Your task to perform on an android device: find snoozed emails in the gmail app Image 0: 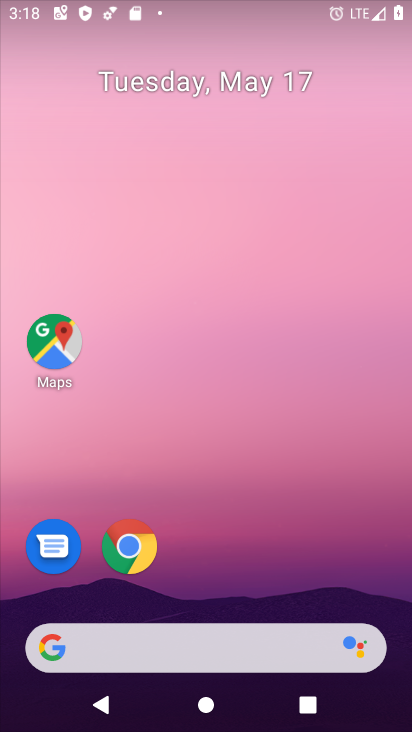
Step 0: press home button
Your task to perform on an android device: find snoozed emails in the gmail app Image 1: 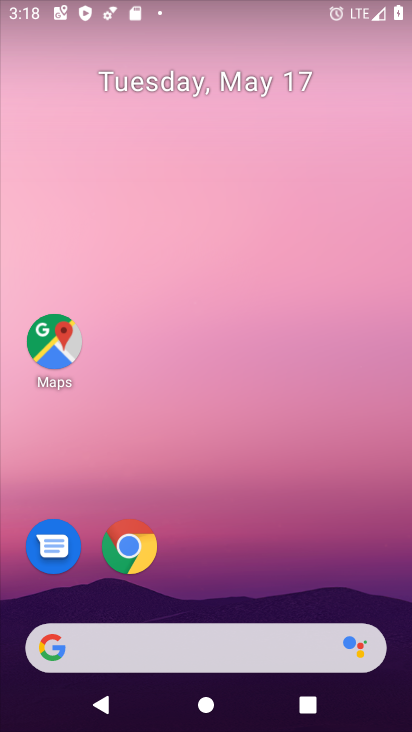
Step 1: drag from (220, 542) to (254, 42)
Your task to perform on an android device: find snoozed emails in the gmail app Image 2: 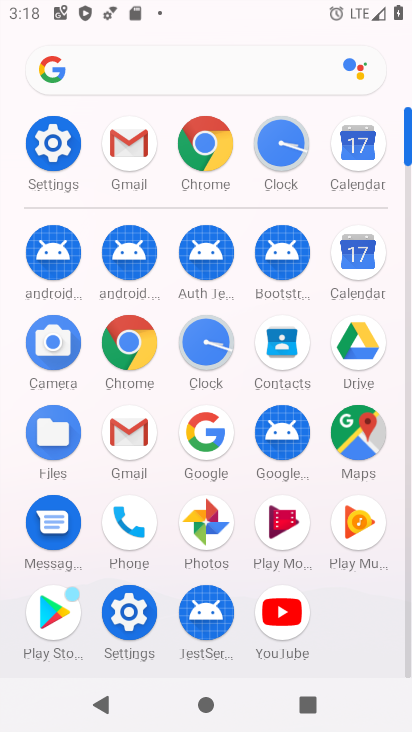
Step 2: click (124, 139)
Your task to perform on an android device: find snoozed emails in the gmail app Image 3: 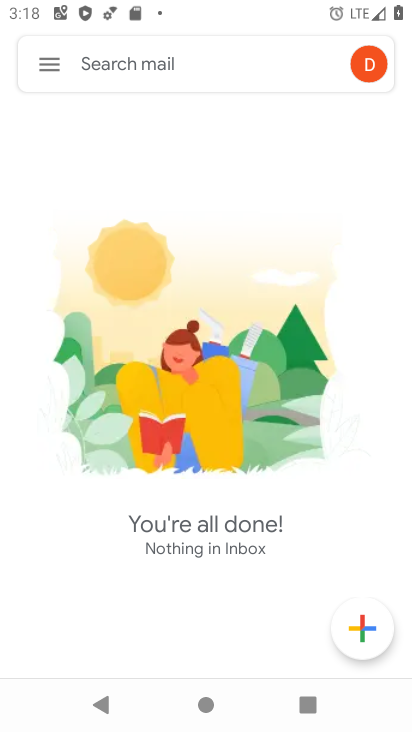
Step 3: click (47, 52)
Your task to perform on an android device: find snoozed emails in the gmail app Image 4: 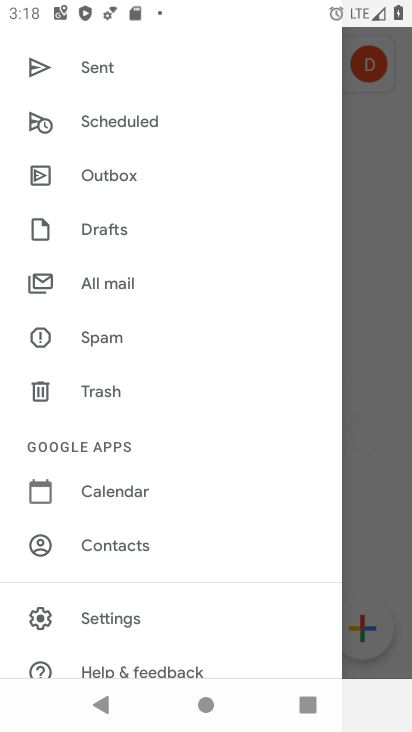
Step 4: drag from (106, 625) to (187, 720)
Your task to perform on an android device: find snoozed emails in the gmail app Image 5: 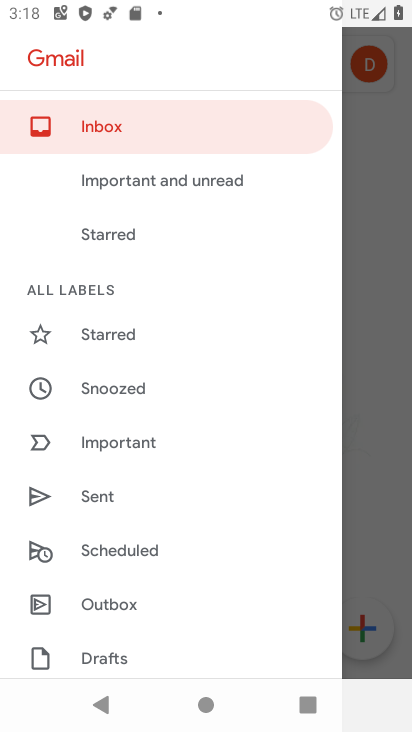
Step 5: click (114, 392)
Your task to perform on an android device: find snoozed emails in the gmail app Image 6: 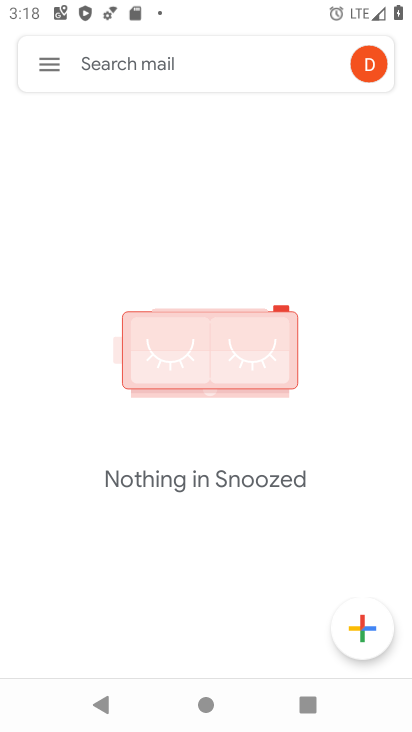
Step 6: task complete